Your task to perform on an android device: turn off priority inbox in the gmail app Image 0: 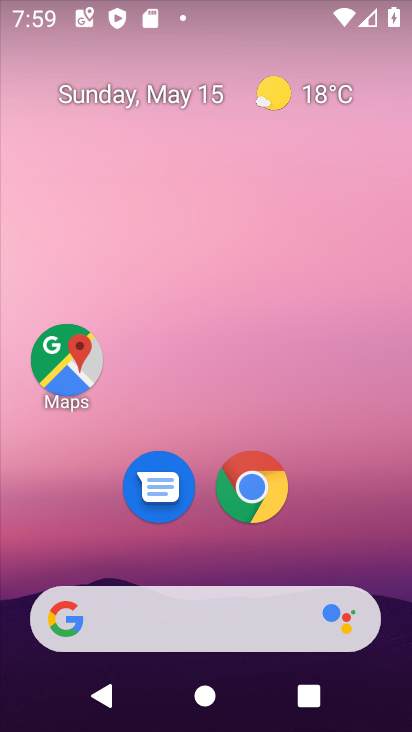
Step 0: drag from (401, 676) to (357, 193)
Your task to perform on an android device: turn off priority inbox in the gmail app Image 1: 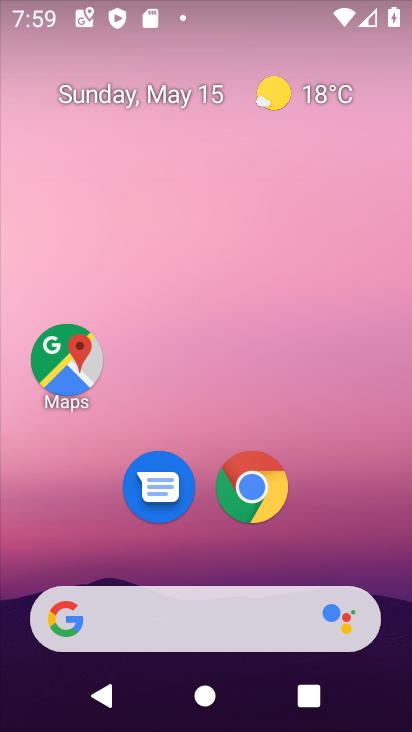
Step 1: drag from (396, 689) to (391, 390)
Your task to perform on an android device: turn off priority inbox in the gmail app Image 2: 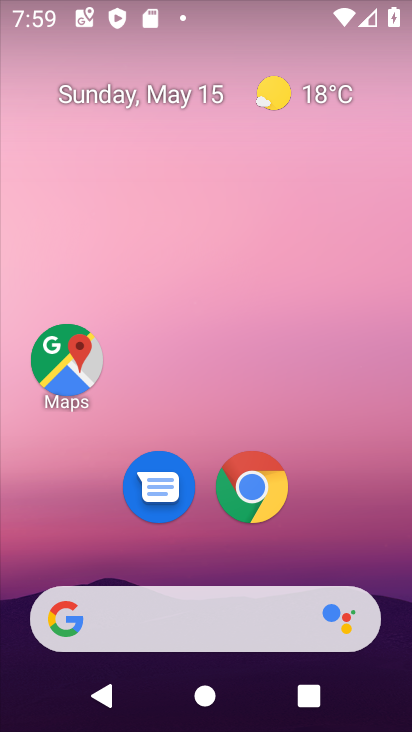
Step 2: drag from (394, 697) to (387, 328)
Your task to perform on an android device: turn off priority inbox in the gmail app Image 3: 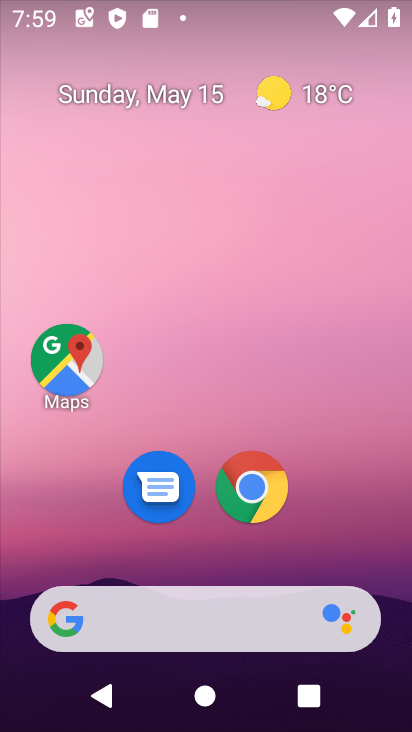
Step 3: drag from (403, 662) to (352, 0)
Your task to perform on an android device: turn off priority inbox in the gmail app Image 4: 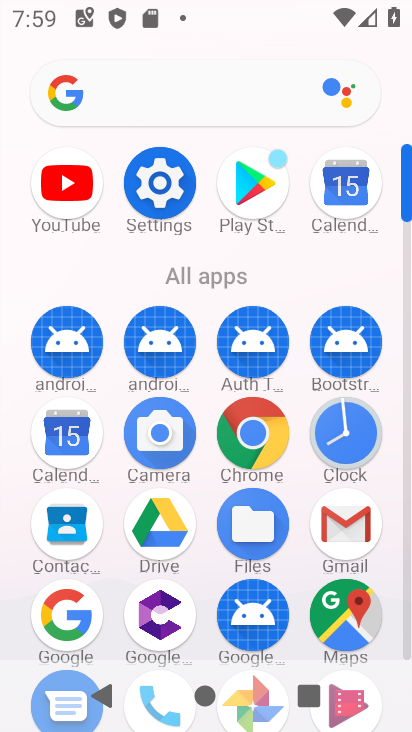
Step 4: click (335, 537)
Your task to perform on an android device: turn off priority inbox in the gmail app Image 5: 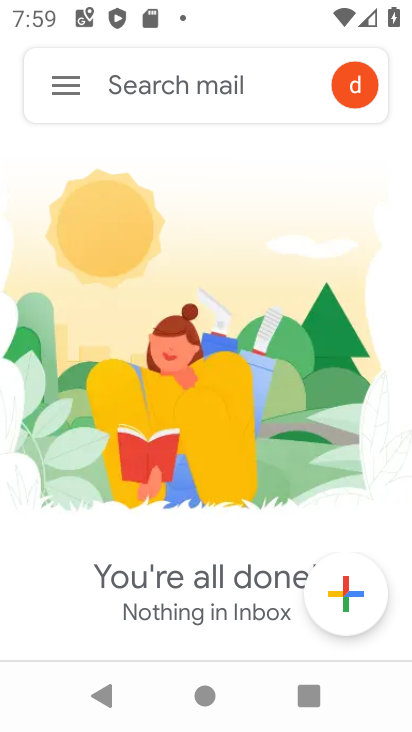
Step 5: click (69, 81)
Your task to perform on an android device: turn off priority inbox in the gmail app Image 6: 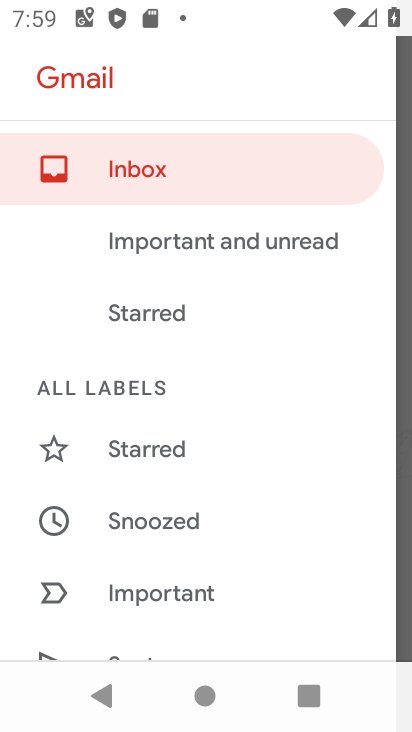
Step 6: drag from (312, 579) to (281, 317)
Your task to perform on an android device: turn off priority inbox in the gmail app Image 7: 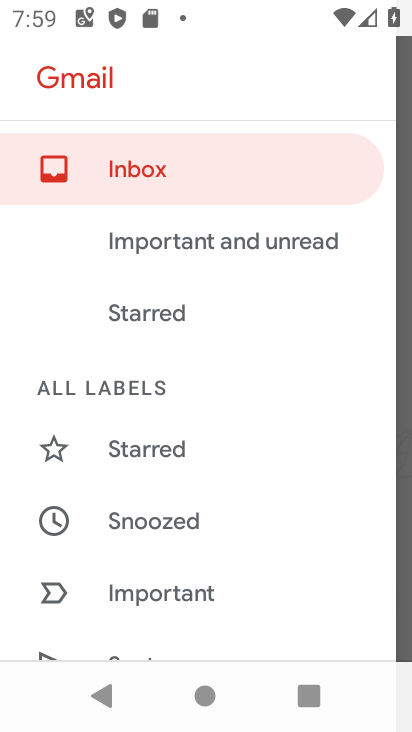
Step 7: drag from (314, 635) to (288, 407)
Your task to perform on an android device: turn off priority inbox in the gmail app Image 8: 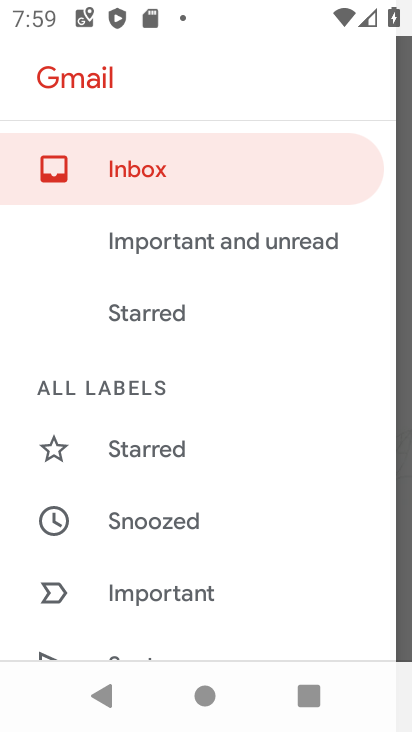
Step 8: drag from (330, 619) to (353, 412)
Your task to perform on an android device: turn off priority inbox in the gmail app Image 9: 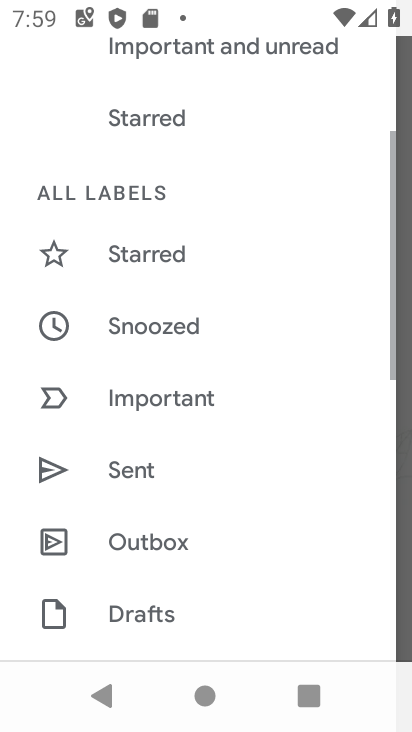
Step 9: drag from (354, 609) to (323, 336)
Your task to perform on an android device: turn off priority inbox in the gmail app Image 10: 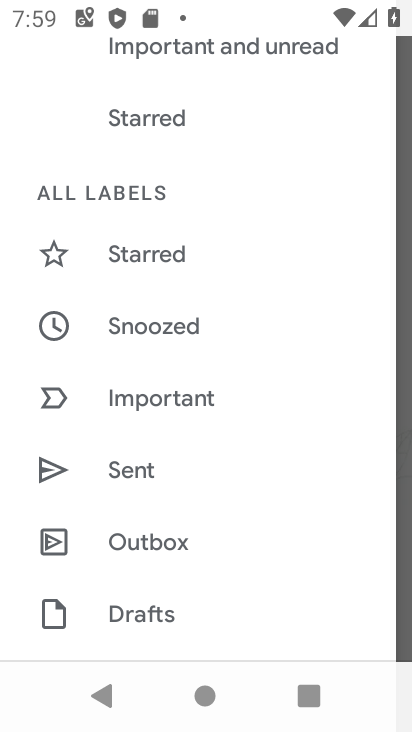
Step 10: drag from (345, 611) to (343, 298)
Your task to perform on an android device: turn off priority inbox in the gmail app Image 11: 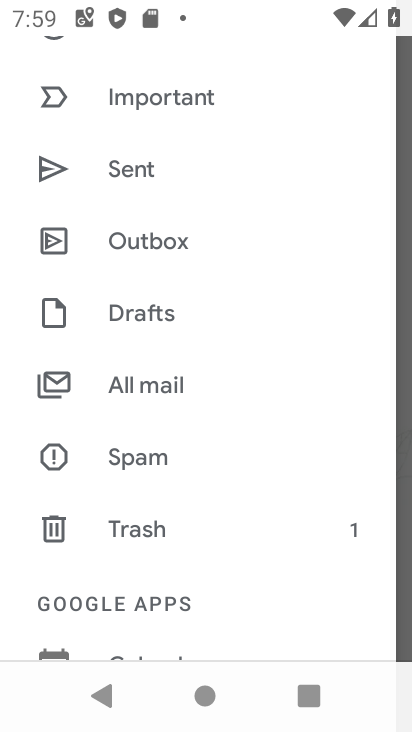
Step 11: drag from (291, 620) to (304, 254)
Your task to perform on an android device: turn off priority inbox in the gmail app Image 12: 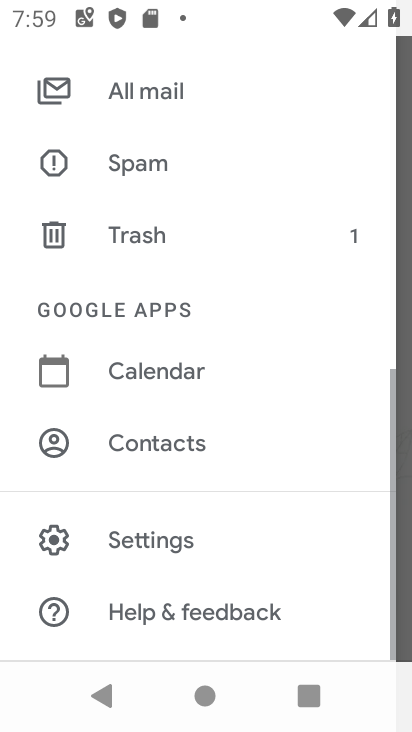
Step 12: click (123, 536)
Your task to perform on an android device: turn off priority inbox in the gmail app Image 13: 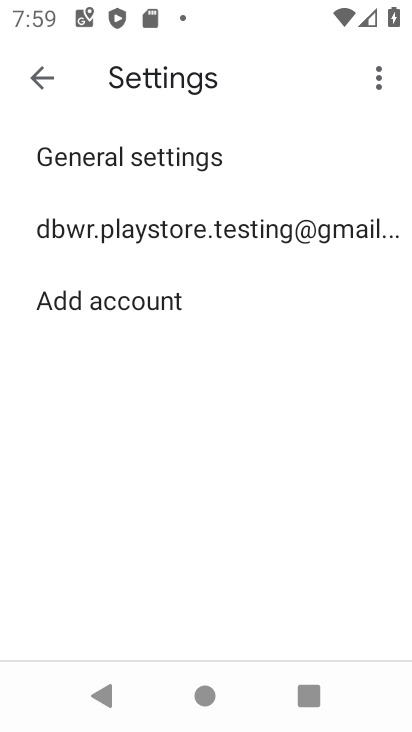
Step 13: click (74, 221)
Your task to perform on an android device: turn off priority inbox in the gmail app Image 14: 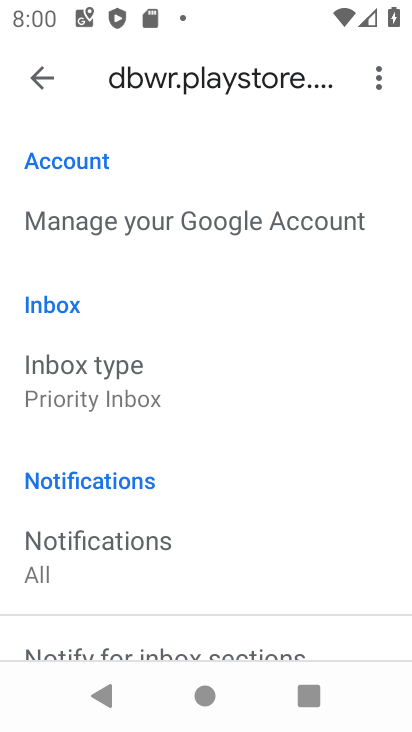
Step 14: click (92, 400)
Your task to perform on an android device: turn off priority inbox in the gmail app Image 15: 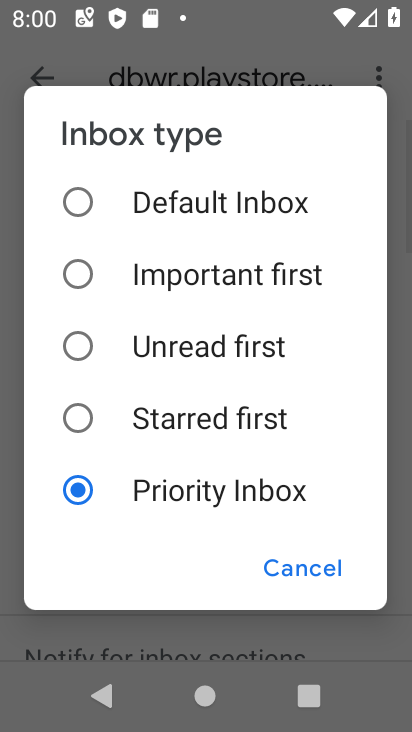
Step 15: click (76, 187)
Your task to perform on an android device: turn off priority inbox in the gmail app Image 16: 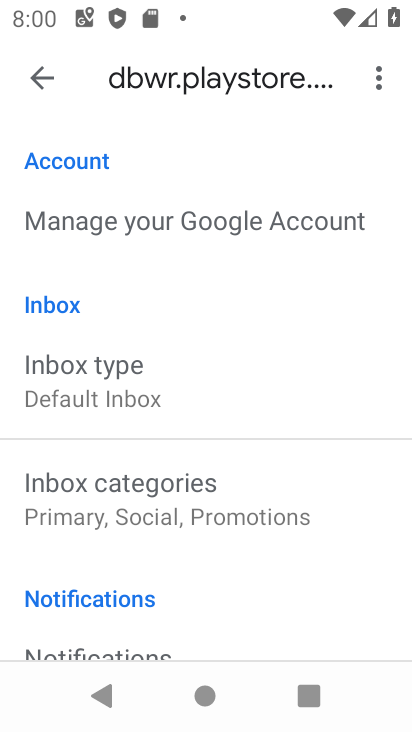
Step 16: task complete